Your task to perform on an android device: Go to CNN.com Image 0: 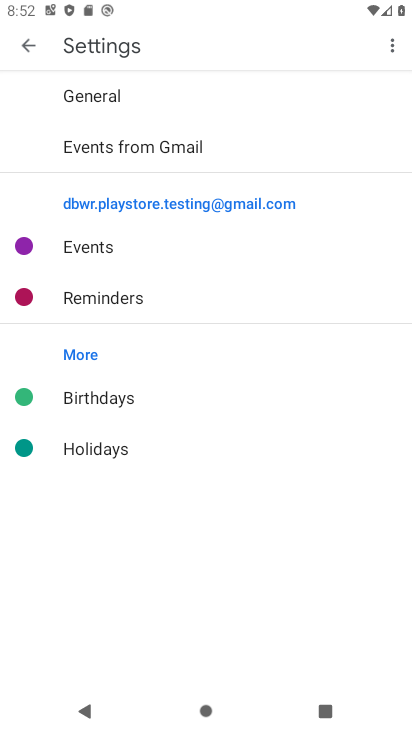
Step 0: press home button
Your task to perform on an android device: Go to CNN.com Image 1: 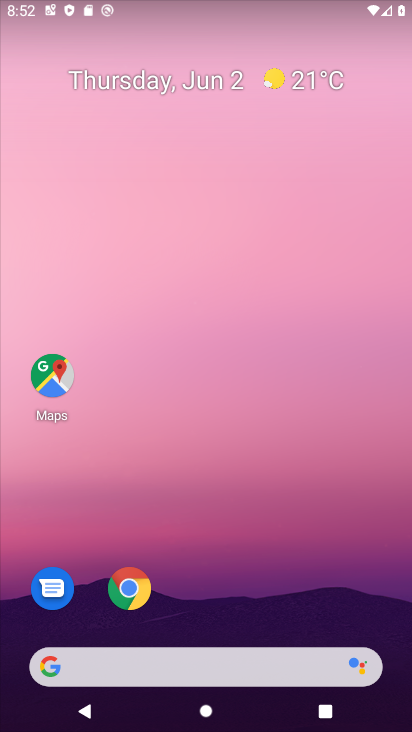
Step 1: click (126, 592)
Your task to perform on an android device: Go to CNN.com Image 2: 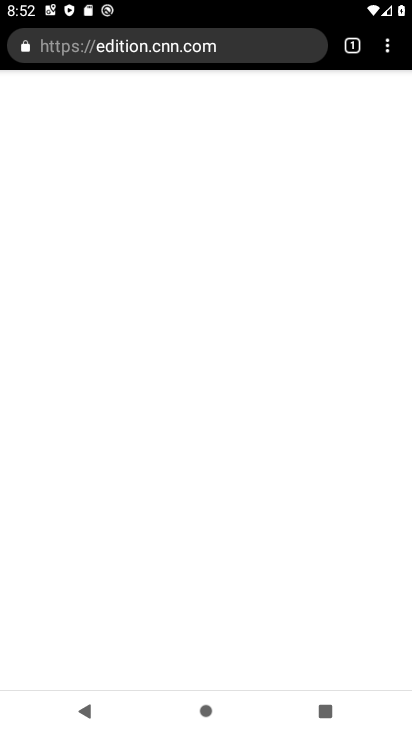
Step 2: task complete